Your task to perform on an android device: empty trash in the gmail app Image 0: 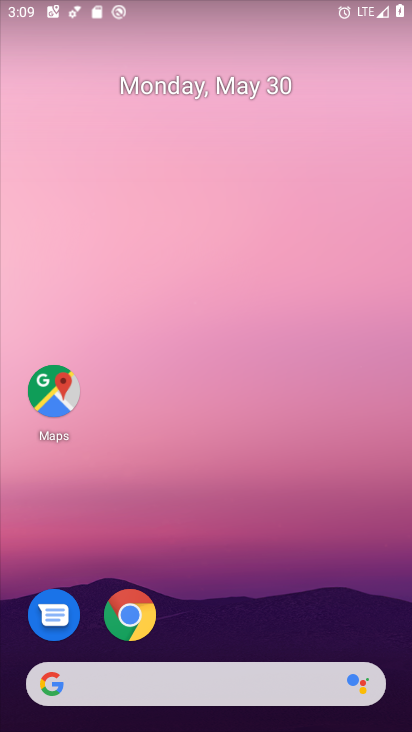
Step 0: drag from (286, 598) to (226, 11)
Your task to perform on an android device: empty trash in the gmail app Image 1: 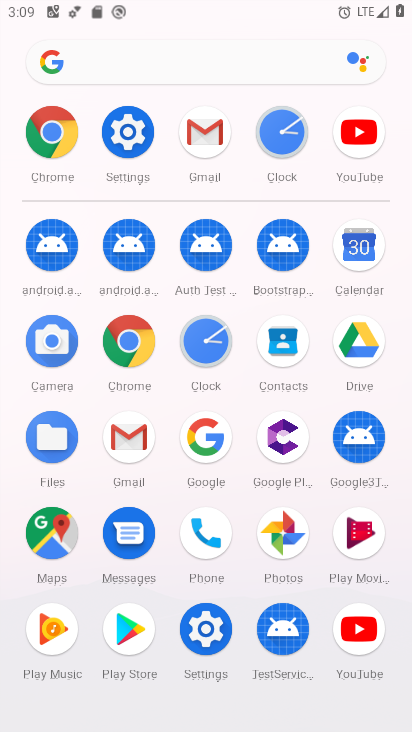
Step 1: click (206, 139)
Your task to perform on an android device: empty trash in the gmail app Image 2: 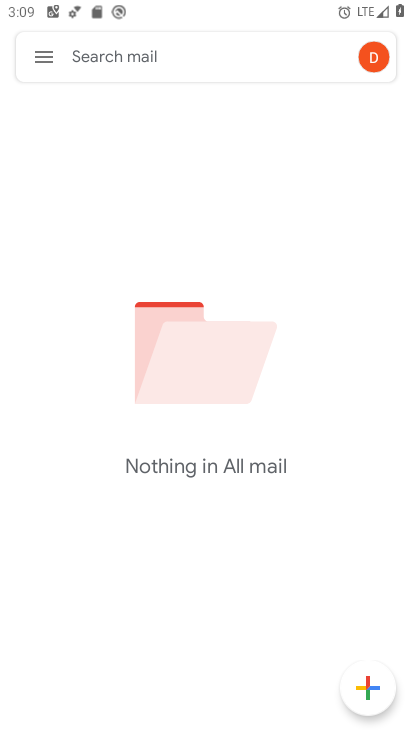
Step 2: click (41, 53)
Your task to perform on an android device: empty trash in the gmail app Image 3: 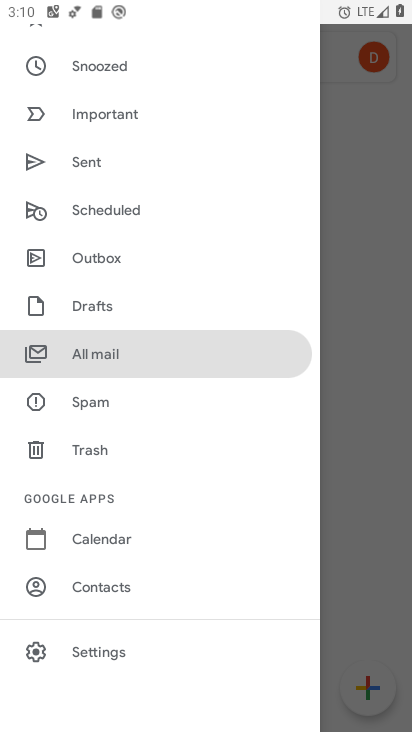
Step 3: click (83, 447)
Your task to perform on an android device: empty trash in the gmail app Image 4: 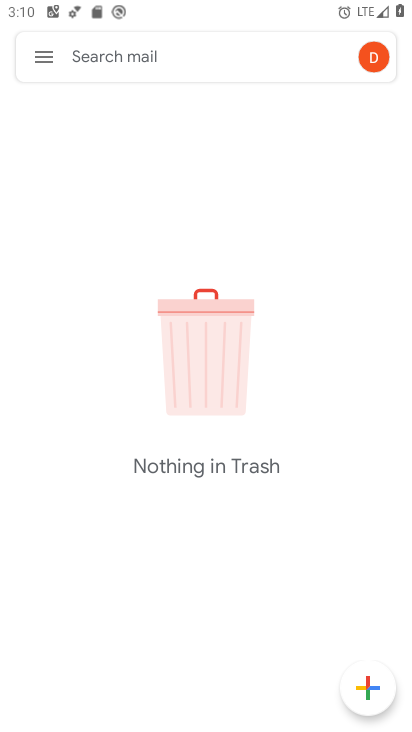
Step 4: task complete